Your task to perform on an android device: Open Chrome and go to settings Image 0: 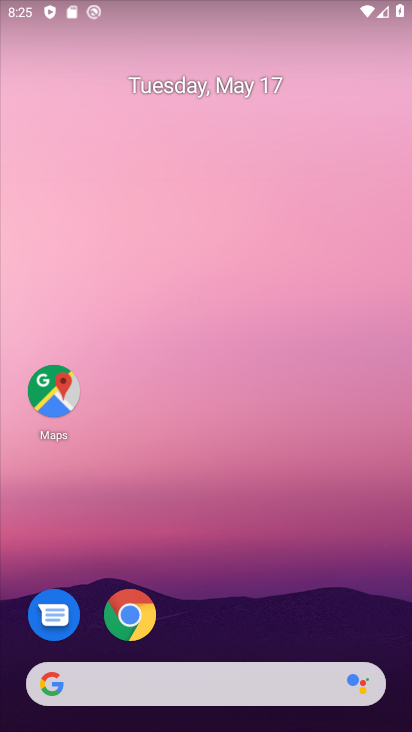
Step 0: click (143, 614)
Your task to perform on an android device: Open Chrome and go to settings Image 1: 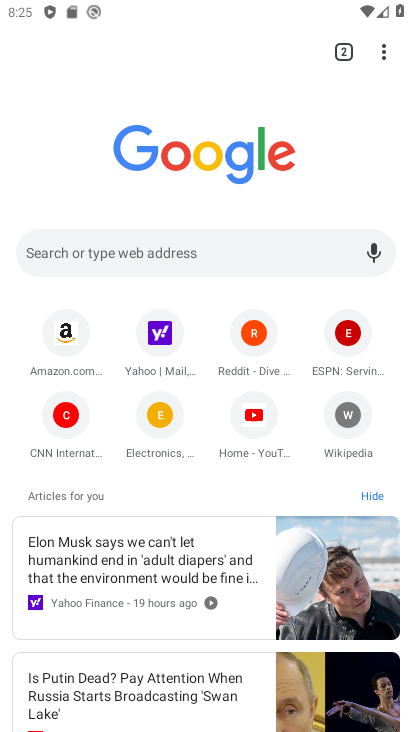
Step 1: task complete